Your task to perform on an android device: create a new album in the google photos Image 0: 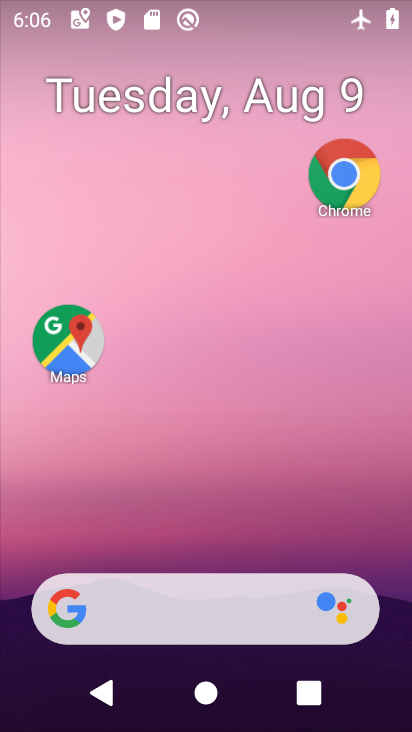
Step 0: drag from (221, 513) to (295, 128)
Your task to perform on an android device: create a new album in the google photos Image 1: 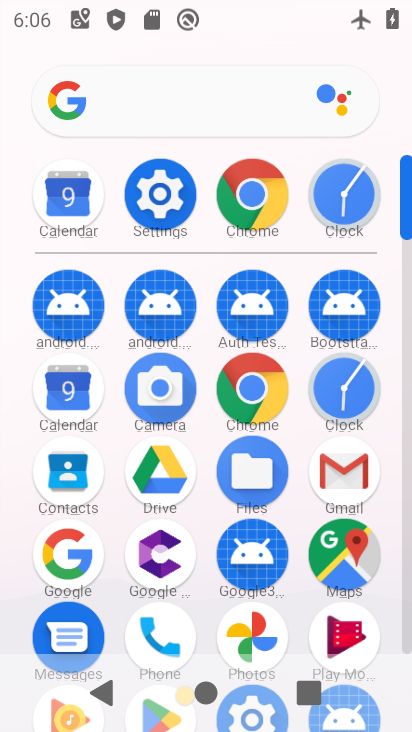
Step 1: drag from (195, 626) to (211, 227)
Your task to perform on an android device: create a new album in the google photos Image 2: 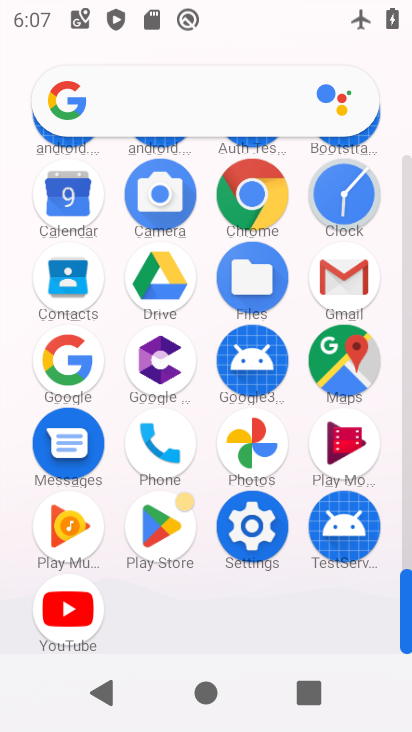
Step 2: click (252, 438)
Your task to perform on an android device: create a new album in the google photos Image 3: 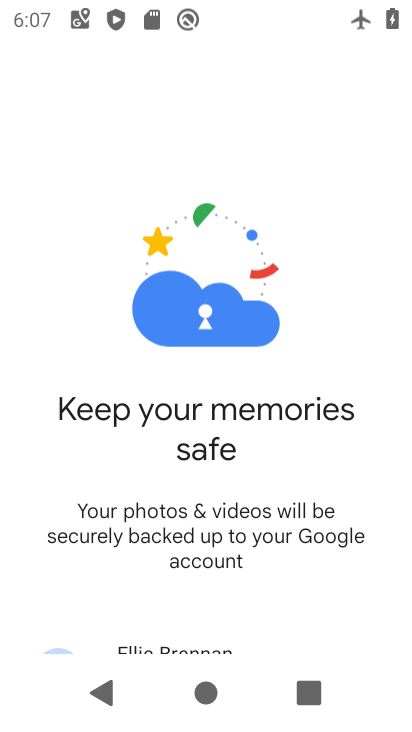
Step 3: drag from (218, 570) to (275, 203)
Your task to perform on an android device: create a new album in the google photos Image 4: 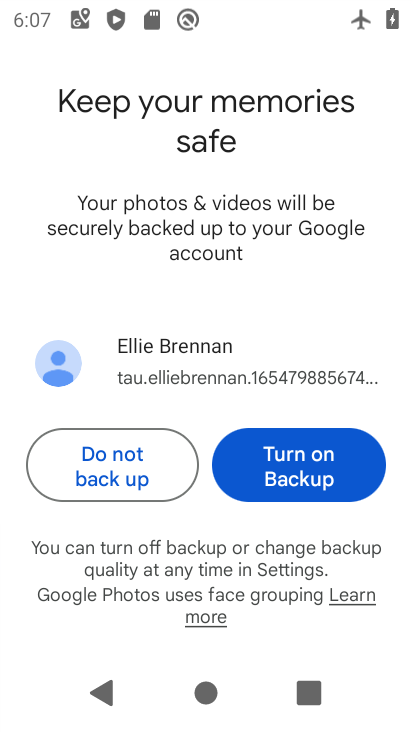
Step 4: drag from (221, 575) to (236, 272)
Your task to perform on an android device: create a new album in the google photos Image 5: 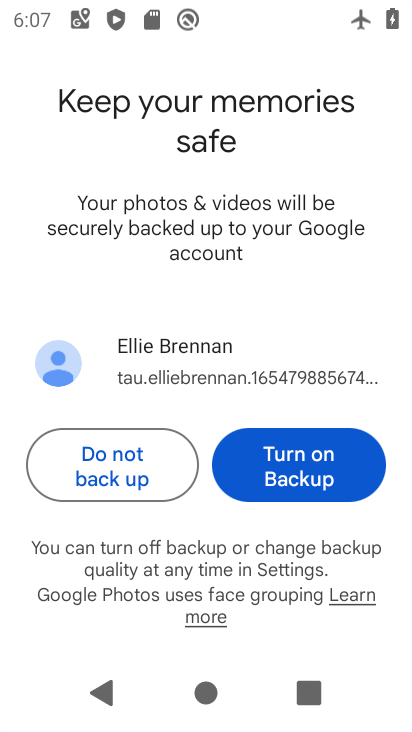
Step 5: drag from (210, 267) to (259, 724)
Your task to perform on an android device: create a new album in the google photos Image 6: 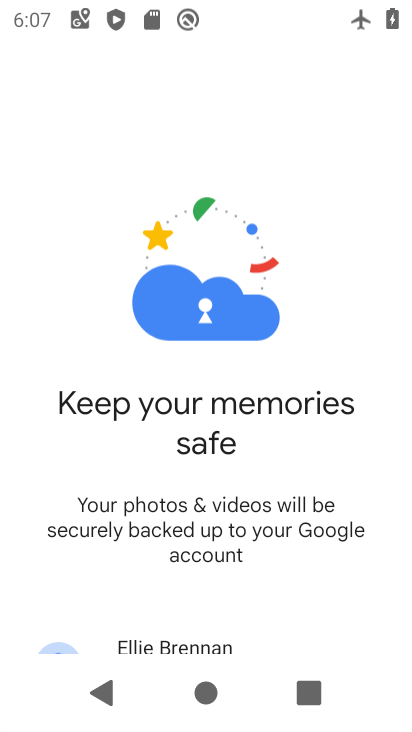
Step 6: drag from (249, 541) to (295, 361)
Your task to perform on an android device: create a new album in the google photos Image 7: 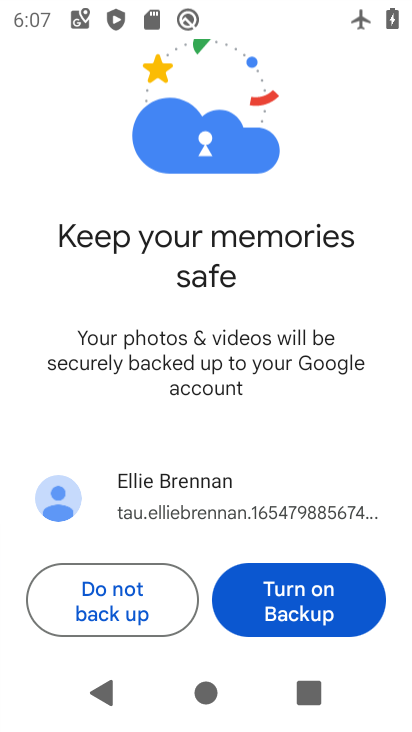
Step 7: click (330, 589)
Your task to perform on an android device: create a new album in the google photos Image 8: 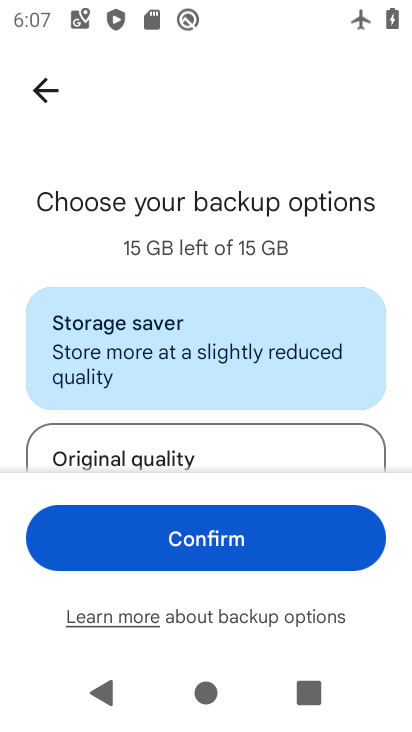
Step 8: click (185, 520)
Your task to perform on an android device: create a new album in the google photos Image 9: 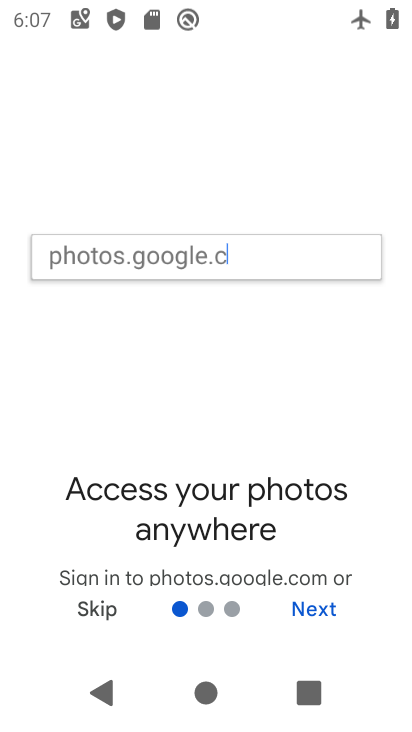
Step 9: click (108, 599)
Your task to perform on an android device: create a new album in the google photos Image 10: 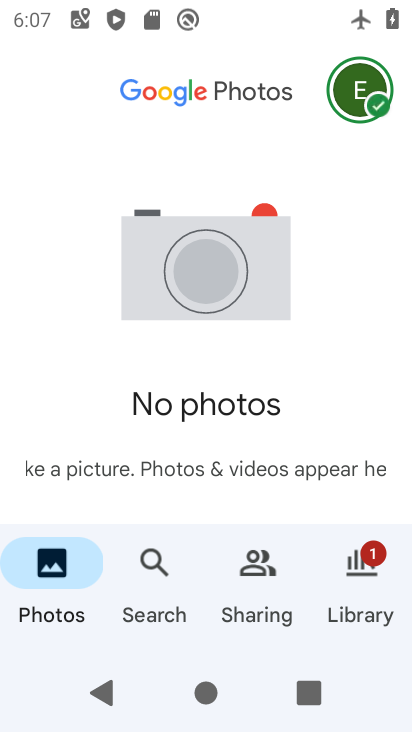
Step 10: drag from (221, 442) to (278, 151)
Your task to perform on an android device: create a new album in the google photos Image 11: 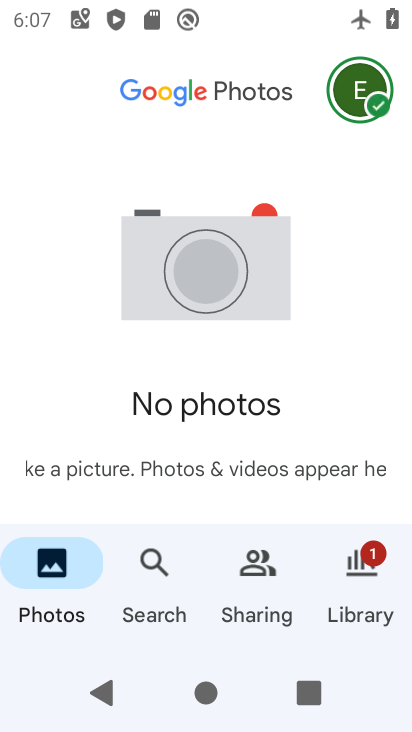
Step 11: drag from (179, 491) to (235, 339)
Your task to perform on an android device: create a new album in the google photos Image 12: 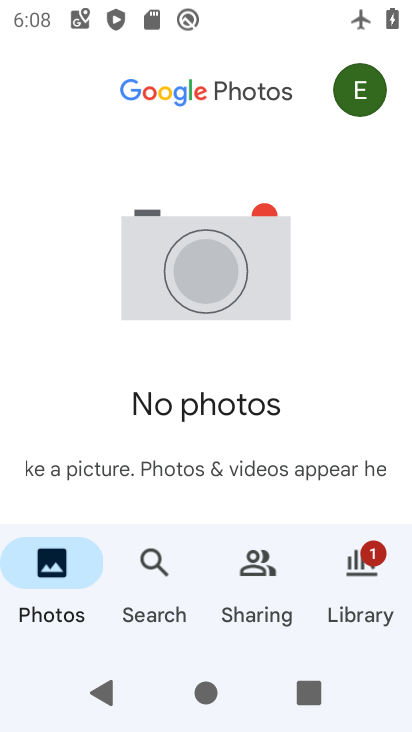
Step 12: drag from (244, 433) to (319, 272)
Your task to perform on an android device: create a new album in the google photos Image 13: 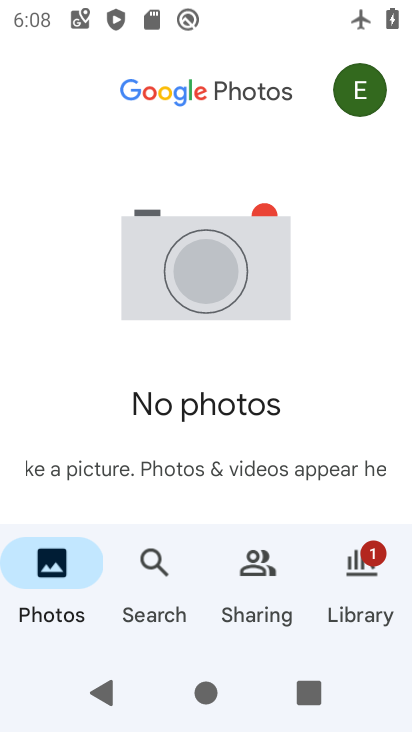
Step 13: drag from (208, 336) to (239, 268)
Your task to perform on an android device: create a new album in the google photos Image 14: 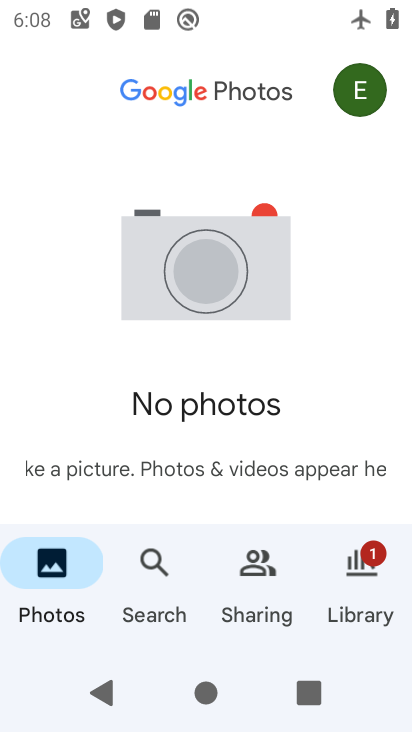
Step 14: click (174, 575)
Your task to perform on an android device: create a new album in the google photos Image 15: 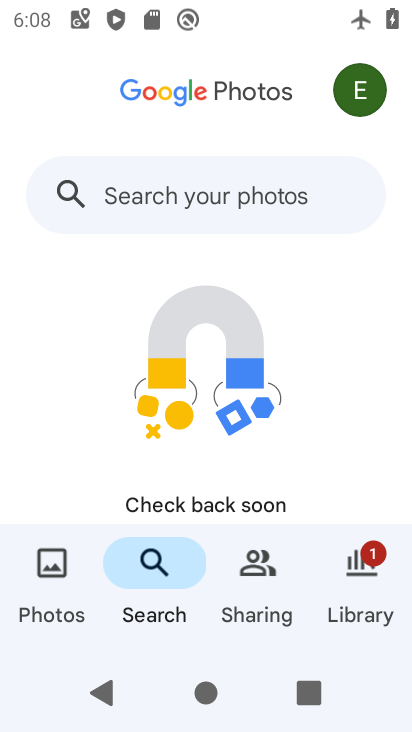
Step 15: drag from (201, 459) to (396, 64)
Your task to perform on an android device: create a new album in the google photos Image 16: 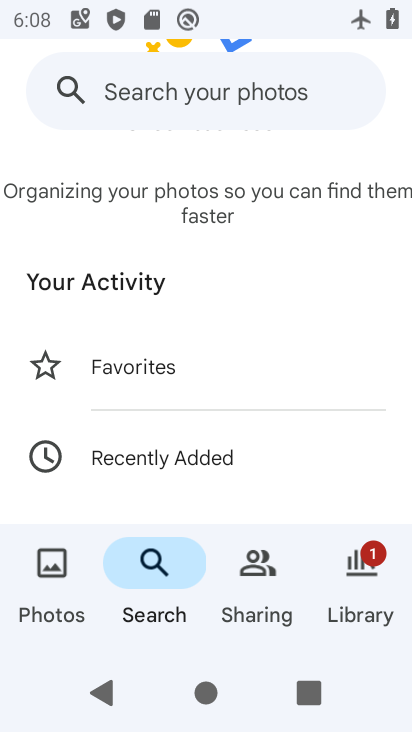
Step 16: click (343, 568)
Your task to perform on an android device: create a new album in the google photos Image 17: 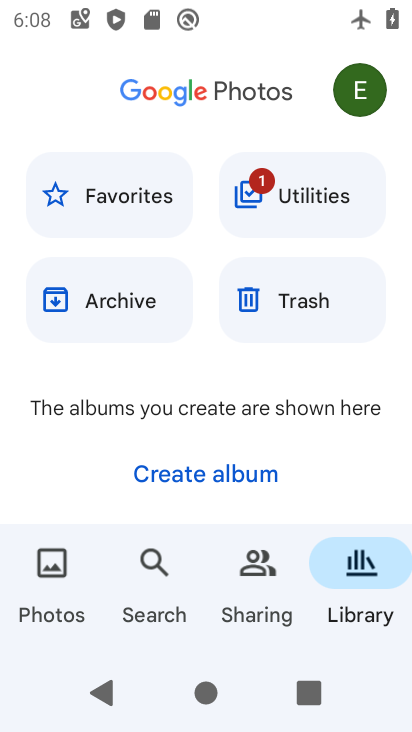
Step 17: click (207, 465)
Your task to perform on an android device: create a new album in the google photos Image 18: 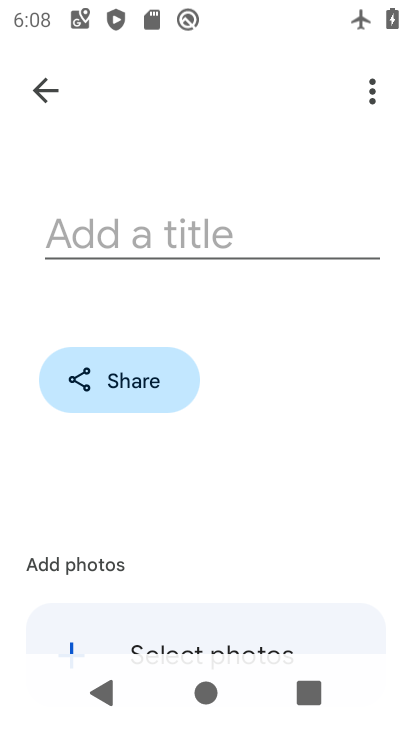
Step 18: click (138, 226)
Your task to perform on an android device: create a new album in the google photos Image 19: 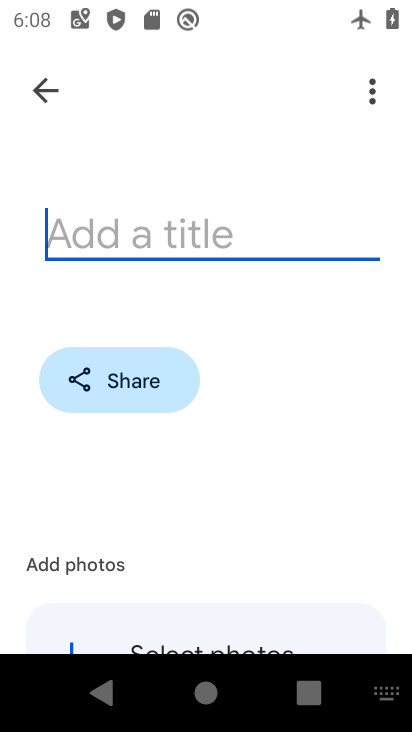
Step 19: type "kmjkk"
Your task to perform on an android device: create a new album in the google photos Image 20: 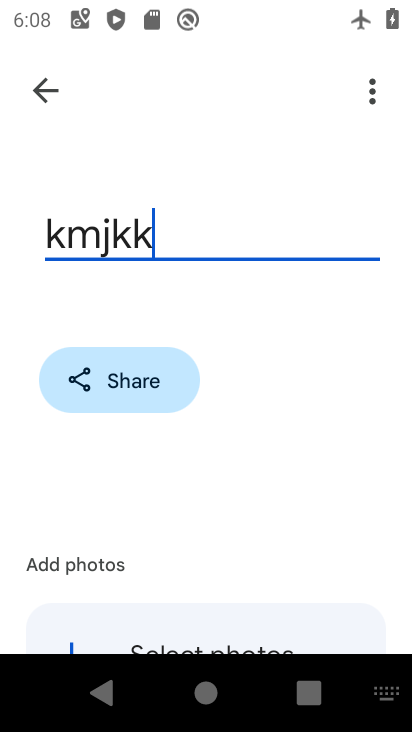
Step 20: drag from (194, 487) to (256, 100)
Your task to perform on an android device: create a new album in the google photos Image 21: 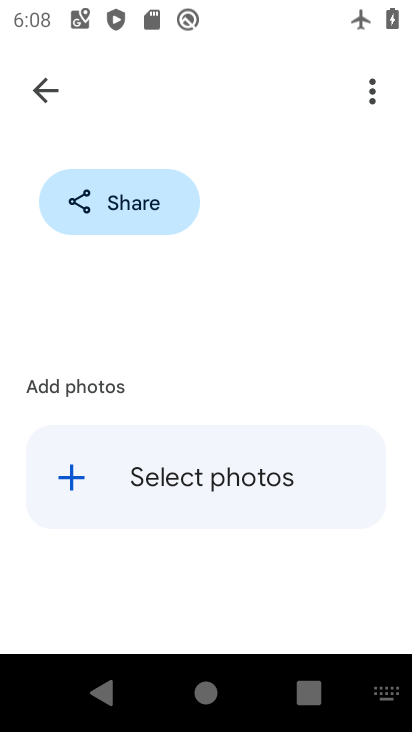
Step 21: drag from (232, 303) to (235, 553)
Your task to perform on an android device: create a new album in the google photos Image 22: 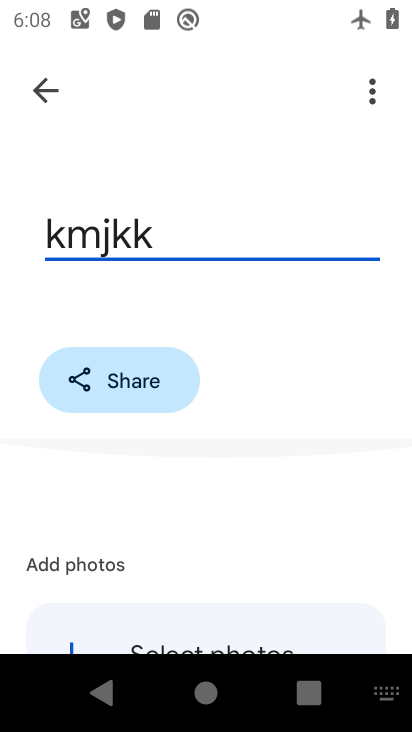
Step 22: drag from (221, 531) to (294, 303)
Your task to perform on an android device: create a new album in the google photos Image 23: 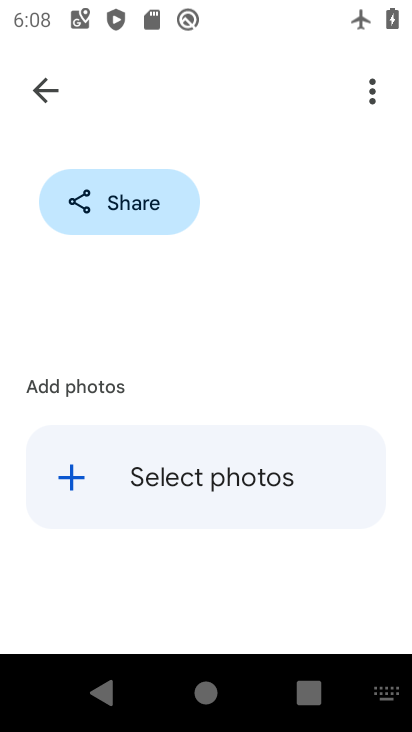
Step 23: click (78, 475)
Your task to perform on an android device: create a new album in the google photos Image 24: 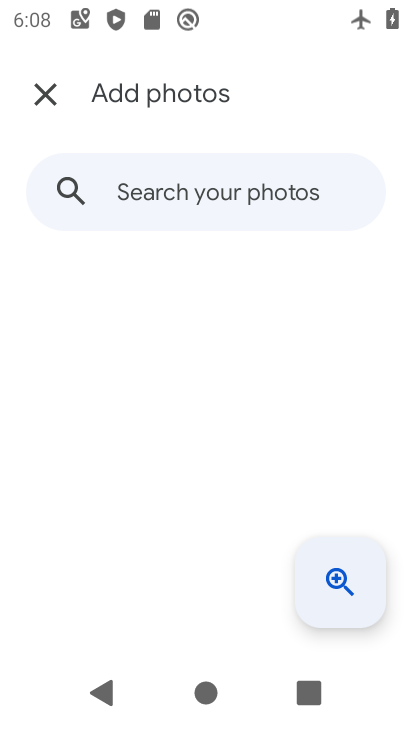
Step 24: click (152, 179)
Your task to perform on an android device: create a new album in the google photos Image 25: 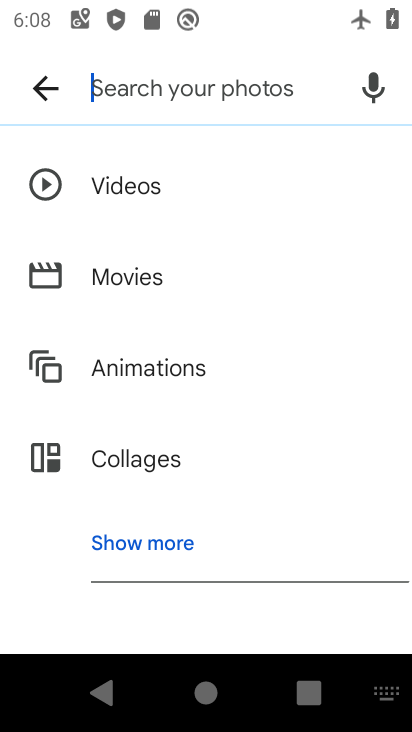
Step 25: click (115, 90)
Your task to perform on an android device: create a new album in the google photos Image 26: 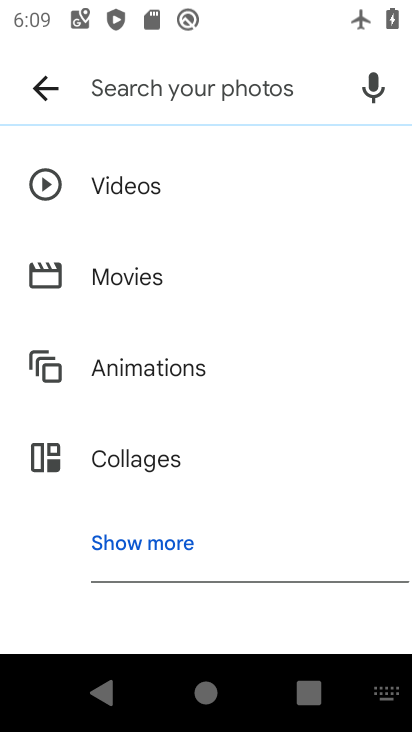
Step 26: type "j,me"
Your task to perform on an android device: create a new album in the google photos Image 27: 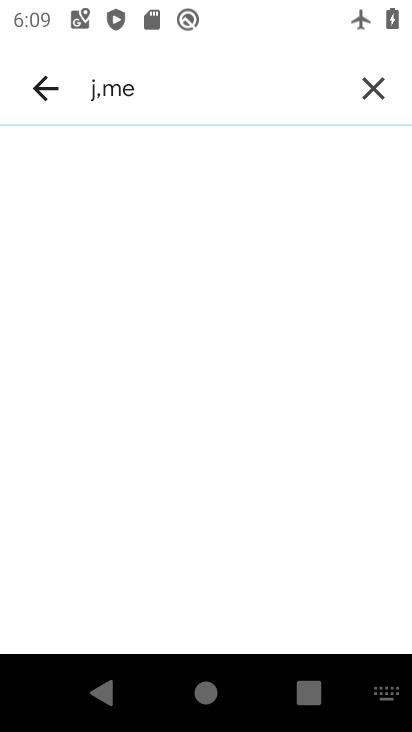
Step 27: click (360, 90)
Your task to perform on an android device: create a new album in the google photos Image 28: 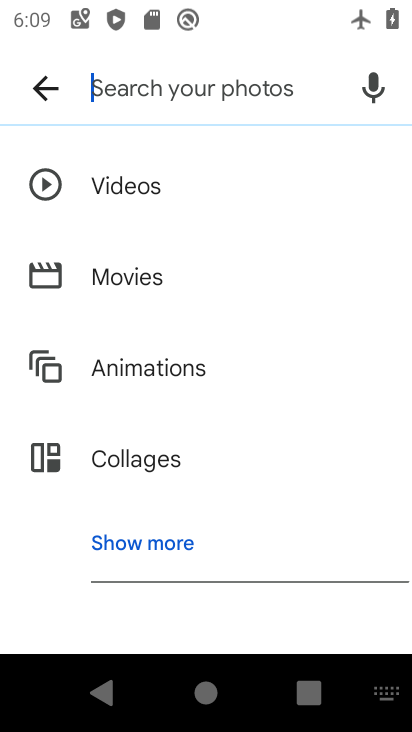
Step 28: click (49, 82)
Your task to perform on an android device: create a new album in the google photos Image 29: 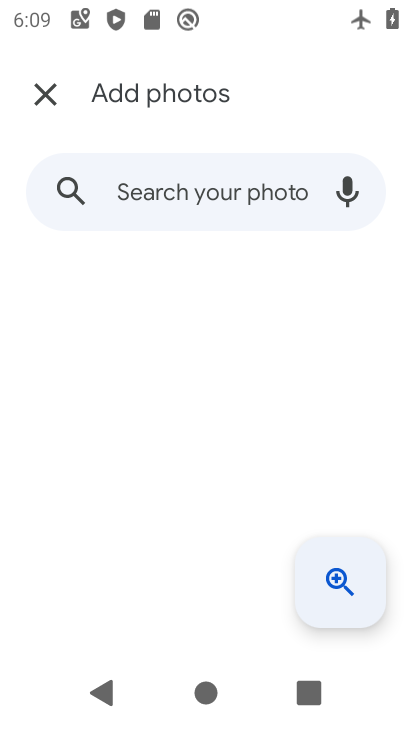
Step 29: task complete